Your task to perform on an android device: turn off location Image 0: 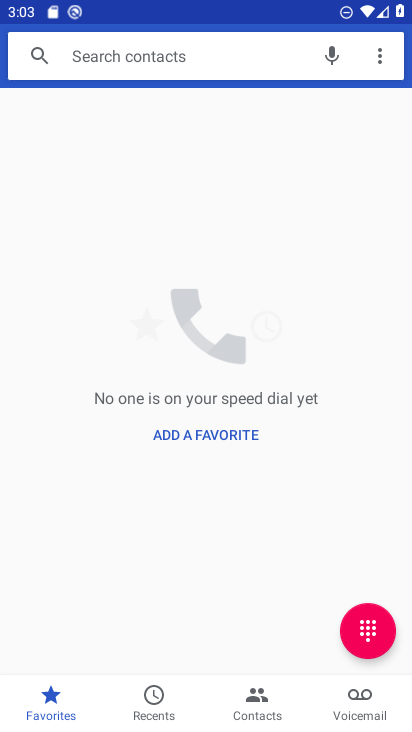
Step 0: drag from (267, 636) to (252, 35)
Your task to perform on an android device: turn off location Image 1: 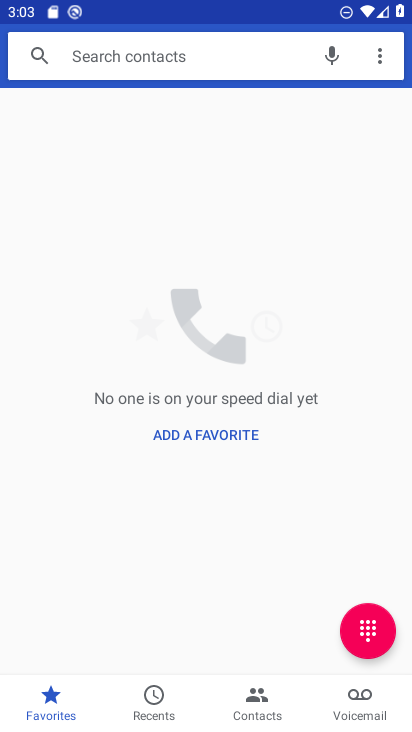
Step 1: press back button
Your task to perform on an android device: turn off location Image 2: 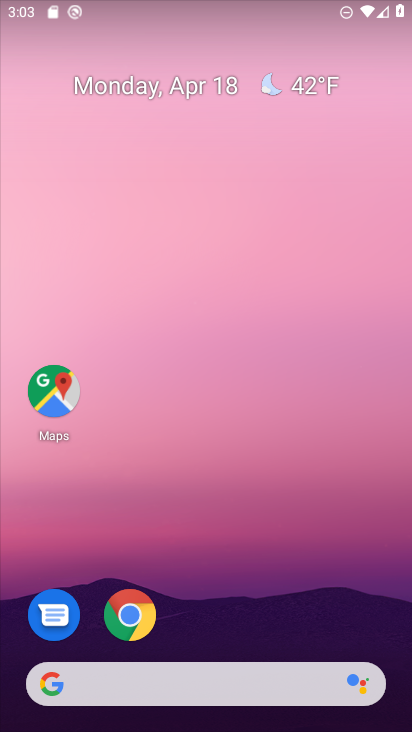
Step 2: drag from (251, 699) to (184, 99)
Your task to perform on an android device: turn off location Image 3: 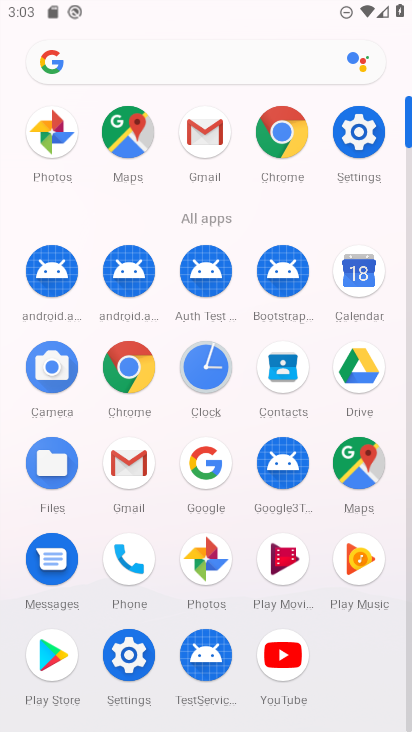
Step 3: click (377, 144)
Your task to perform on an android device: turn off location Image 4: 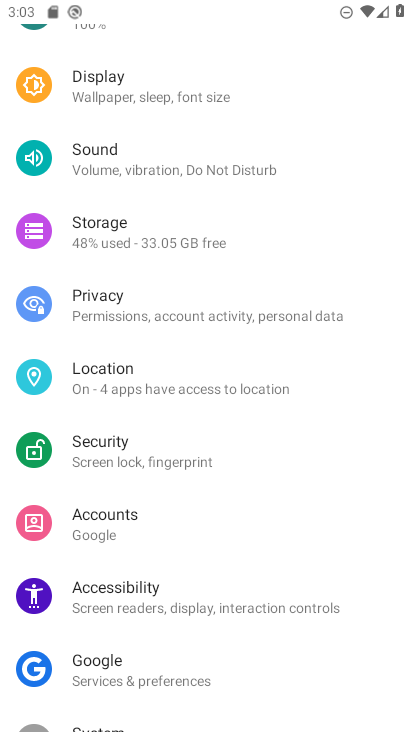
Step 4: click (240, 385)
Your task to perform on an android device: turn off location Image 5: 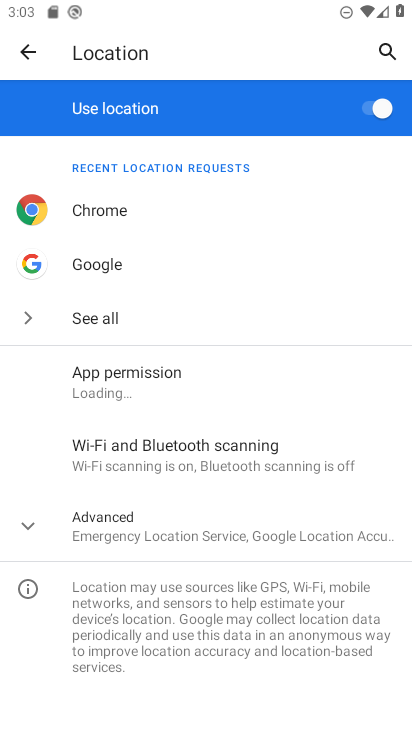
Step 5: click (376, 107)
Your task to perform on an android device: turn off location Image 6: 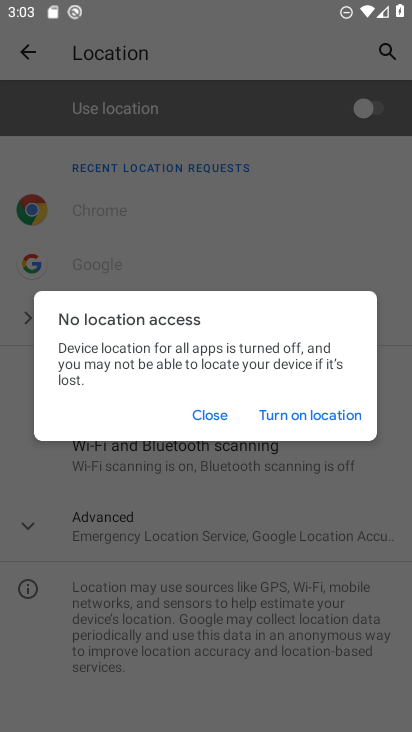
Step 6: click (215, 411)
Your task to perform on an android device: turn off location Image 7: 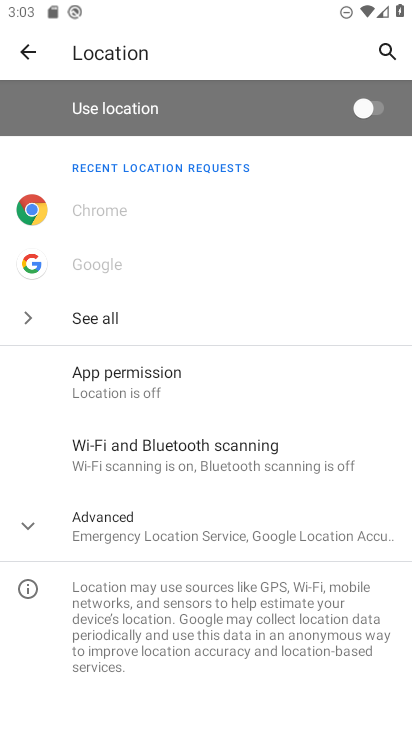
Step 7: task complete